Your task to perform on an android device: turn notification dots off Image 0: 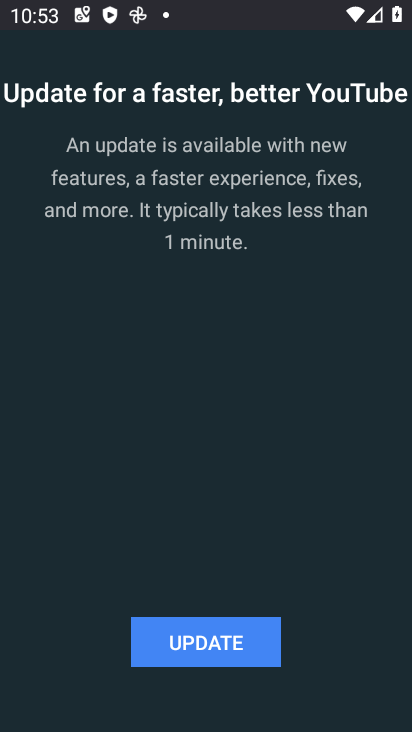
Step 0: press home button
Your task to perform on an android device: turn notification dots off Image 1: 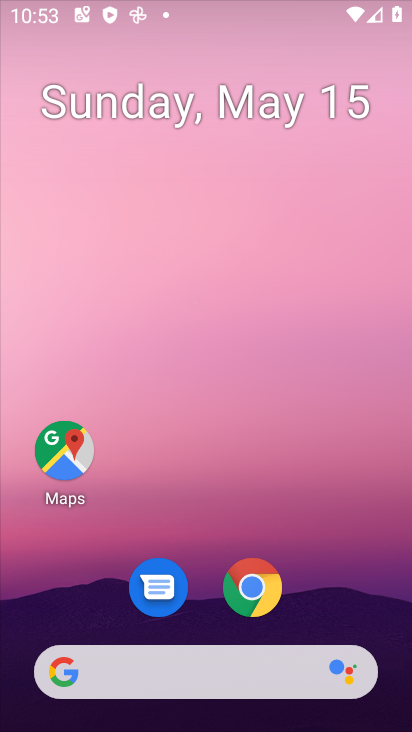
Step 1: drag from (384, 635) to (271, 64)
Your task to perform on an android device: turn notification dots off Image 2: 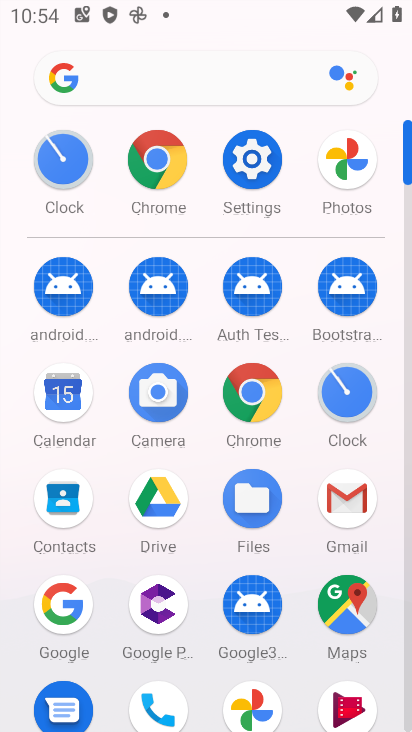
Step 2: click (259, 148)
Your task to perform on an android device: turn notification dots off Image 3: 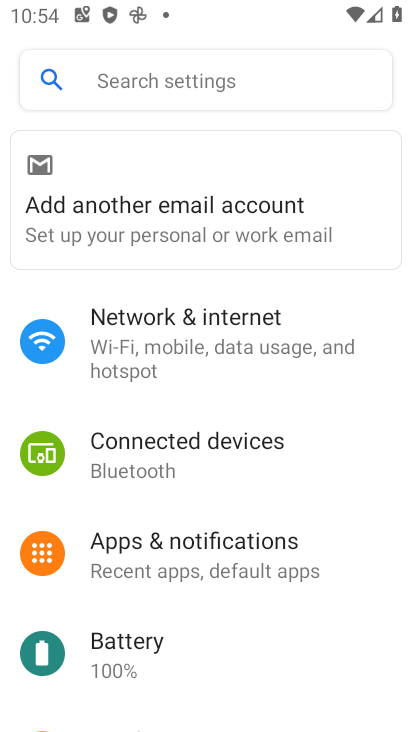
Step 3: click (235, 560)
Your task to perform on an android device: turn notification dots off Image 4: 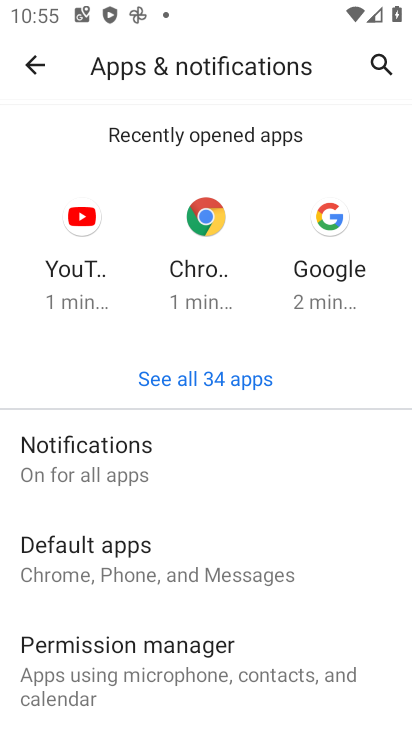
Step 4: click (195, 448)
Your task to perform on an android device: turn notification dots off Image 5: 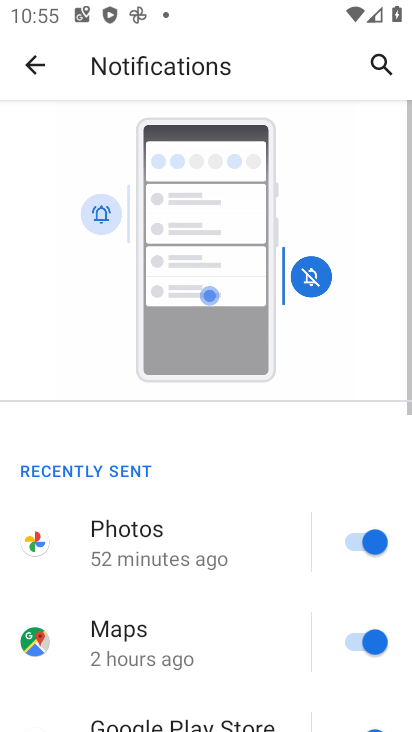
Step 5: drag from (137, 659) to (196, 135)
Your task to perform on an android device: turn notification dots off Image 6: 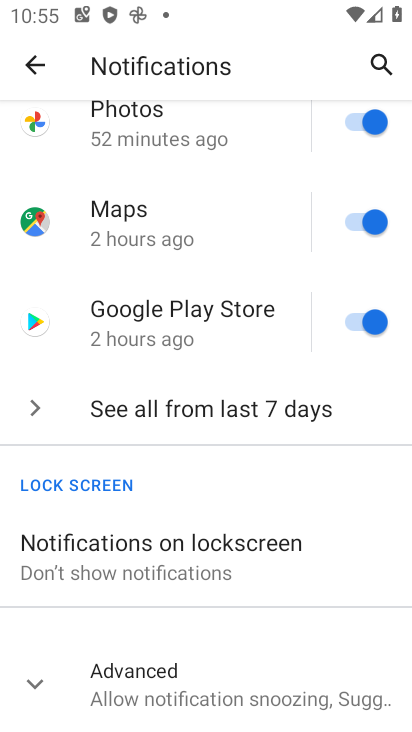
Step 6: click (121, 673)
Your task to perform on an android device: turn notification dots off Image 7: 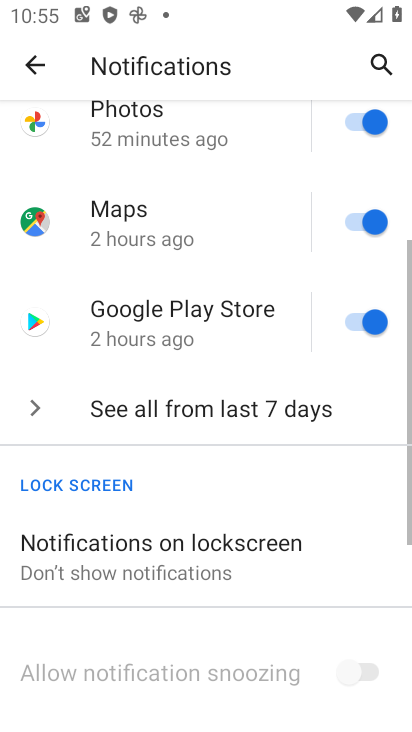
Step 7: drag from (145, 622) to (160, 576)
Your task to perform on an android device: turn notification dots off Image 8: 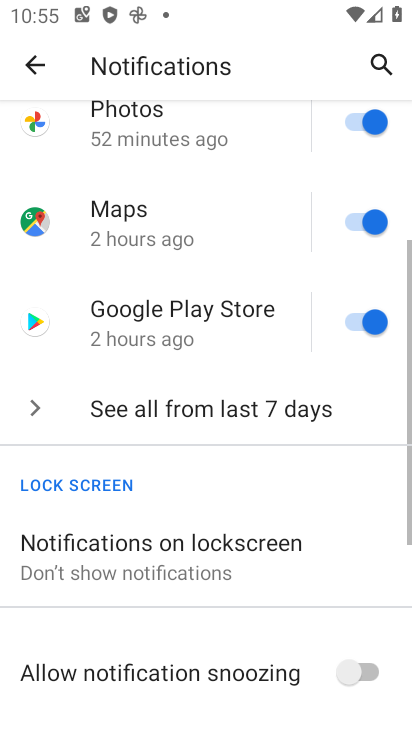
Step 8: drag from (183, 449) to (179, 188)
Your task to perform on an android device: turn notification dots off Image 9: 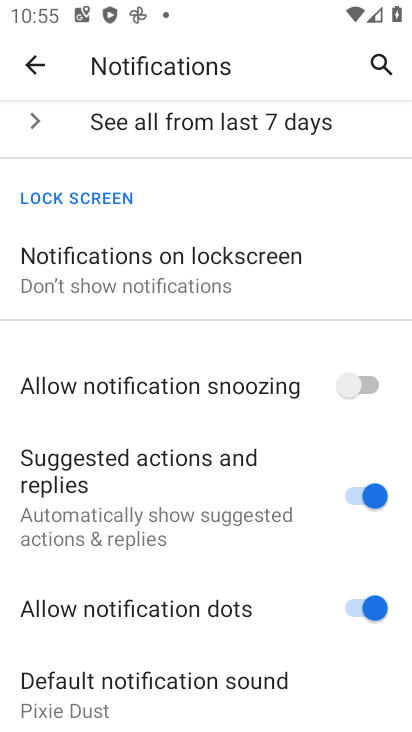
Step 9: click (287, 624)
Your task to perform on an android device: turn notification dots off Image 10: 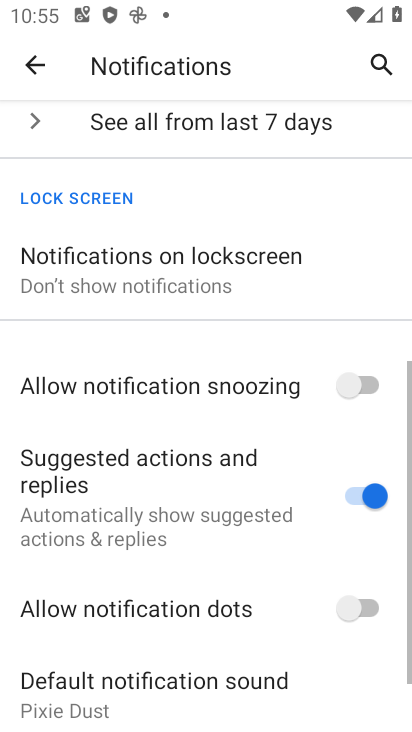
Step 10: task complete